Your task to perform on an android device: stop showing notifications on the lock screen Image 0: 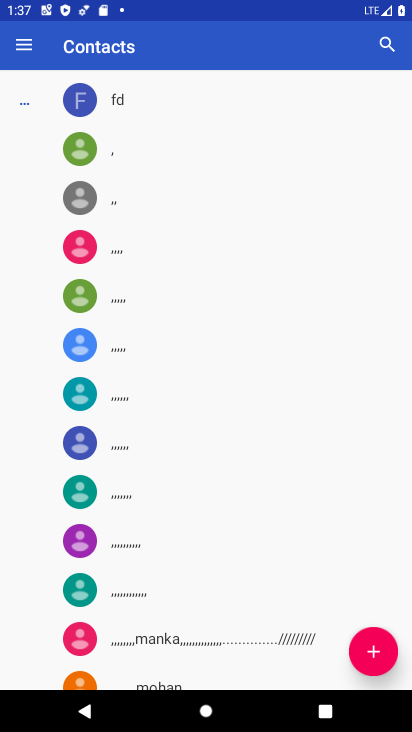
Step 0: press home button
Your task to perform on an android device: stop showing notifications on the lock screen Image 1: 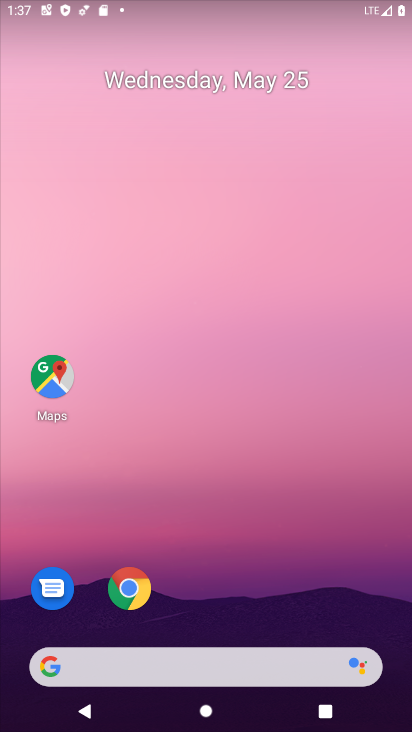
Step 1: drag from (345, 630) to (319, 71)
Your task to perform on an android device: stop showing notifications on the lock screen Image 2: 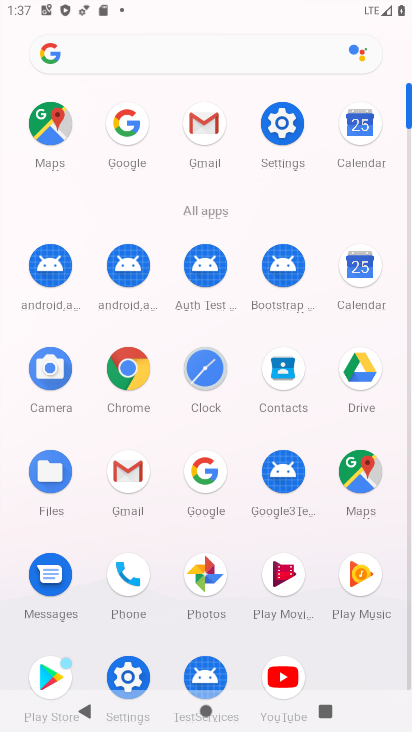
Step 2: click (279, 130)
Your task to perform on an android device: stop showing notifications on the lock screen Image 3: 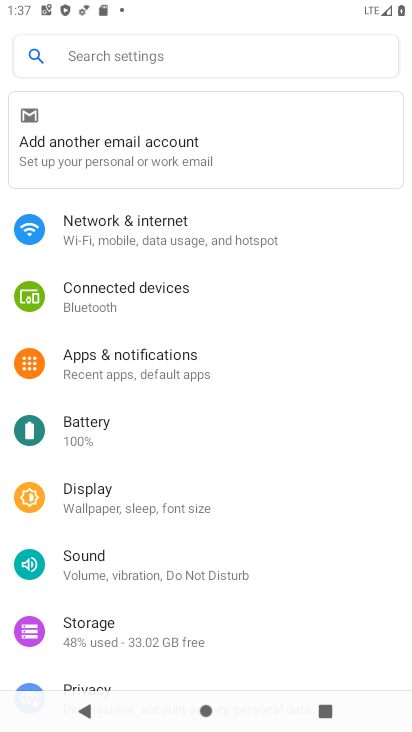
Step 3: click (119, 371)
Your task to perform on an android device: stop showing notifications on the lock screen Image 4: 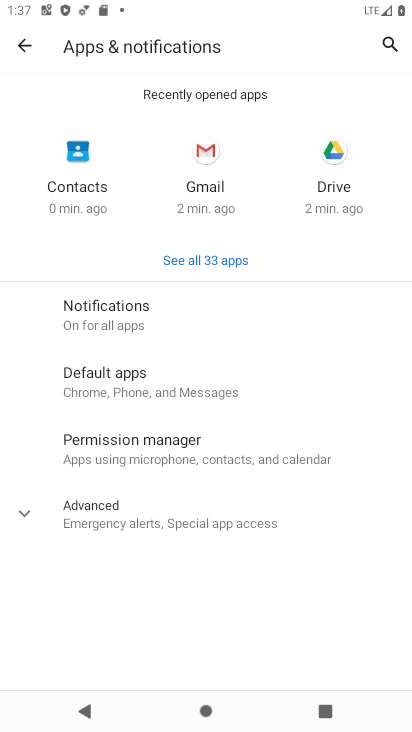
Step 4: click (91, 326)
Your task to perform on an android device: stop showing notifications on the lock screen Image 5: 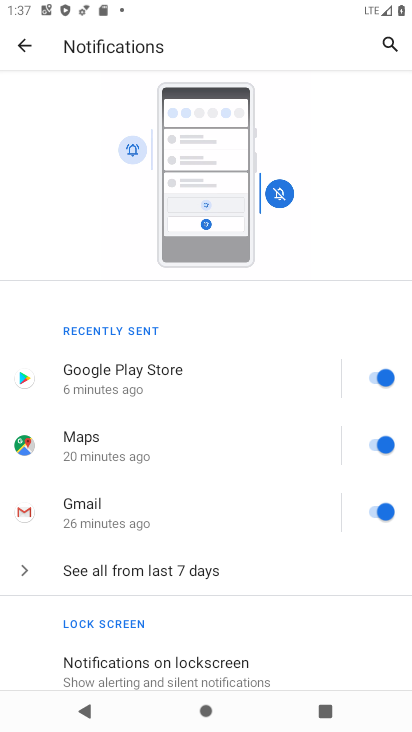
Step 5: drag from (166, 552) to (148, 302)
Your task to perform on an android device: stop showing notifications on the lock screen Image 6: 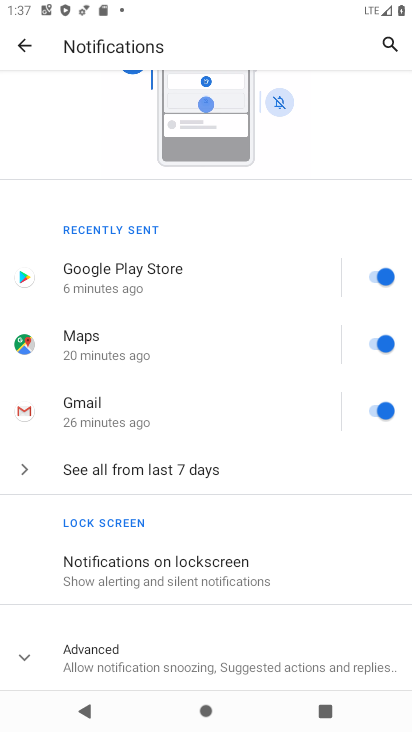
Step 6: click (142, 573)
Your task to perform on an android device: stop showing notifications on the lock screen Image 7: 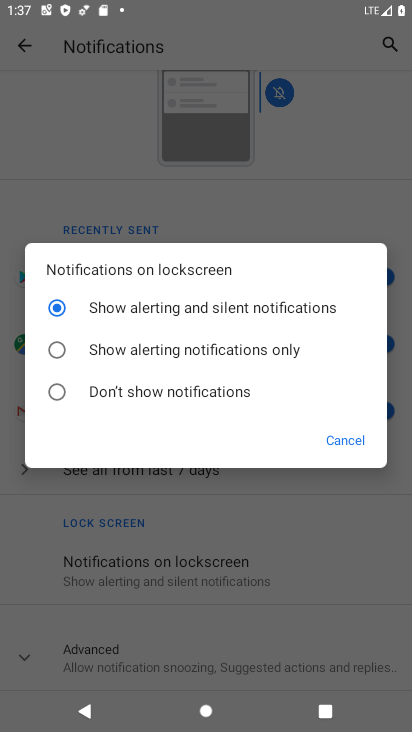
Step 7: click (61, 394)
Your task to perform on an android device: stop showing notifications on the lock screen Image 8: 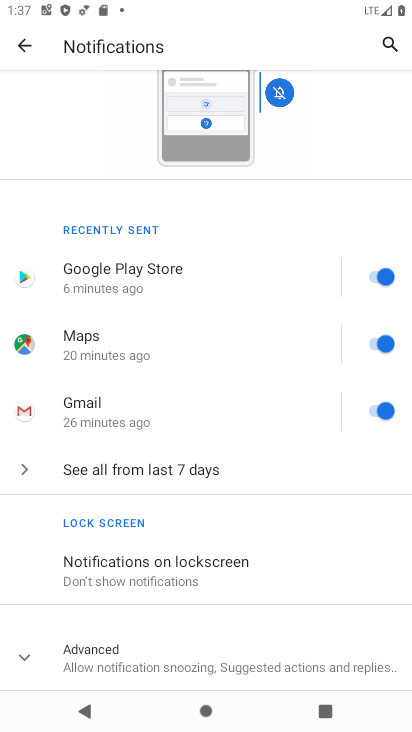
Step 8: task complete